Your task to perform on an android device: all mails in gmail Image 0: 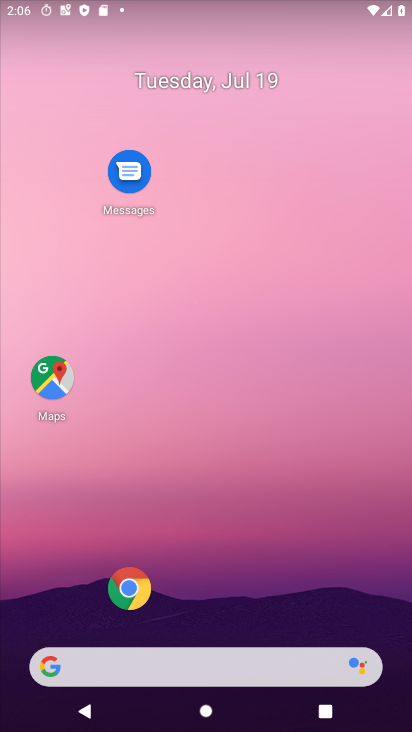
Step 0: drag from (74, 669) to (409, 187)
Your task to perform on an android device: all mails in gmail Image 1: 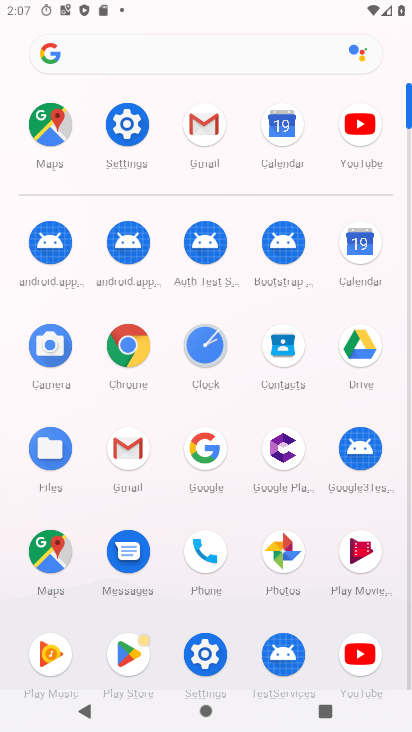
Step 1: click (138, 451)
Your task to perform on an android device: all mails in gmail Image 2: 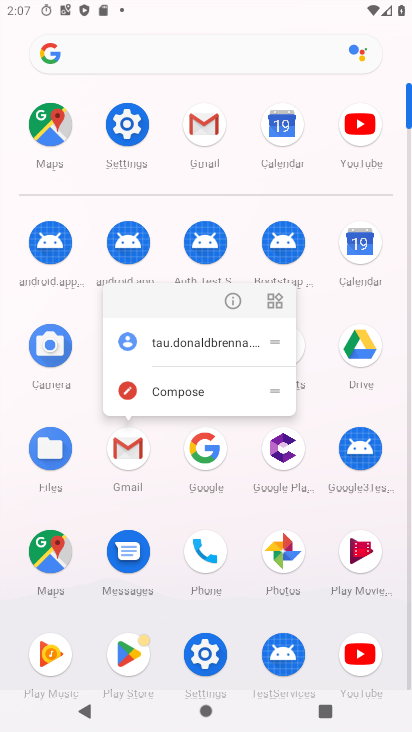
Step 2: click (122, 440)
Your task to perform on an android device: all mails in gmail Image 3: 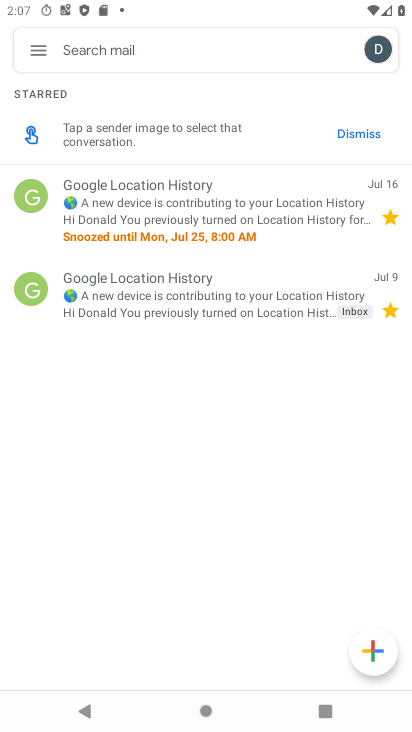
Step 3: click (41, 50)
Your task to perform on an android device: all mails in gmail Image 4: 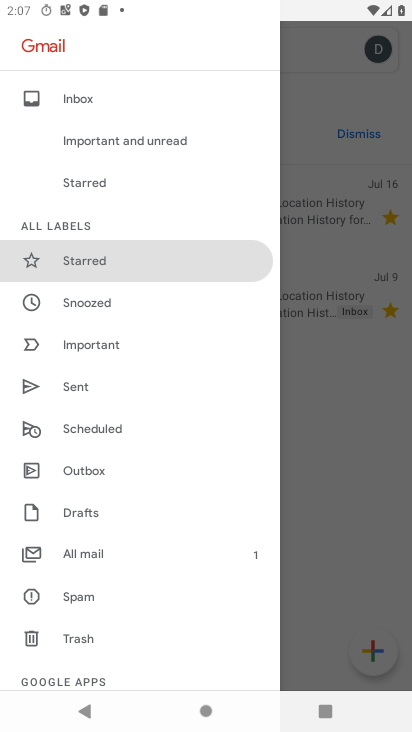
Step 4: click (86, 545)
Your task to perform on an android device: all mails in gmail Image 5: 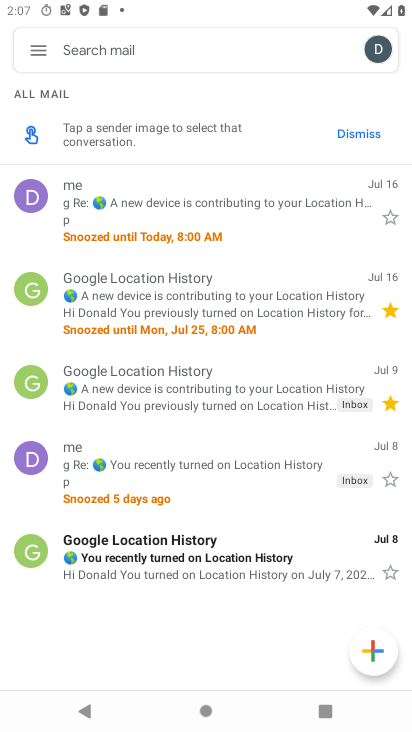
Step 5: task complete